Your task to perform on an android device: clear all cookies in the chrome app Image 0: 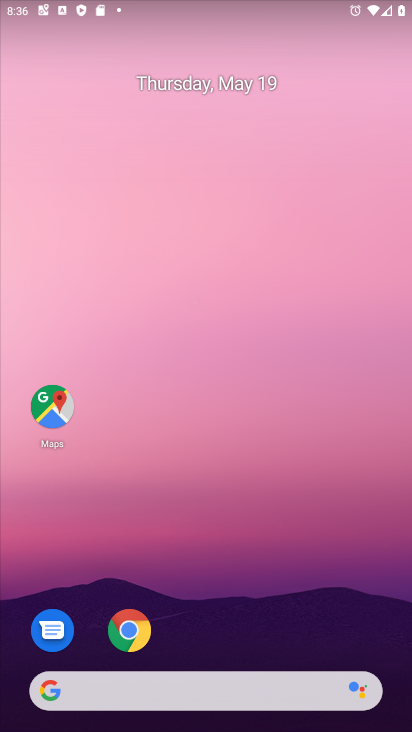
Step 0: click (129, 629)
Your task to perform on an android device: clear all cookies in the chrome app Image 1: 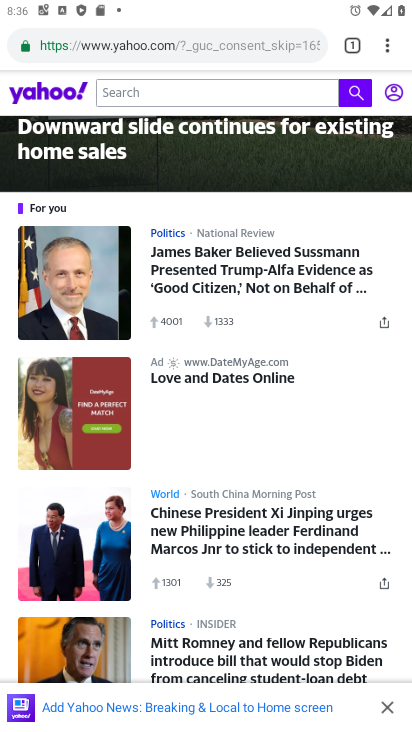
Step 1: click (384, 51)
Your task to perform on an android device: clear all cookies in the chrome app Image 2: 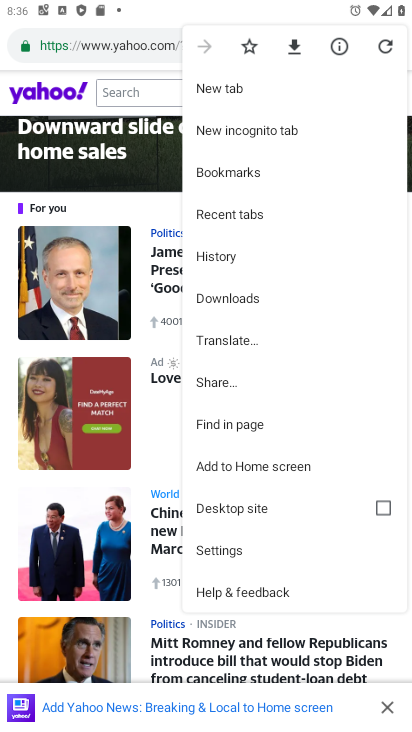
Step 2: click (213, 260)
Your task to perform on an android device: clear all cookies in the chrome app Image 3: 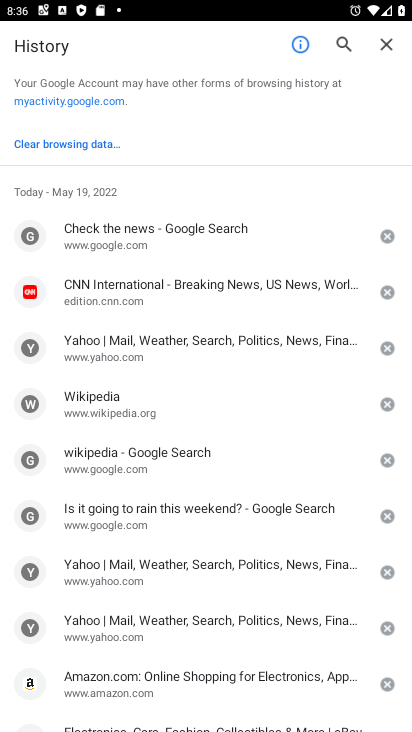
Step 3: click (55, 139)
Your task to perform on an android device: clear all cookies in the chrome app Image 4: 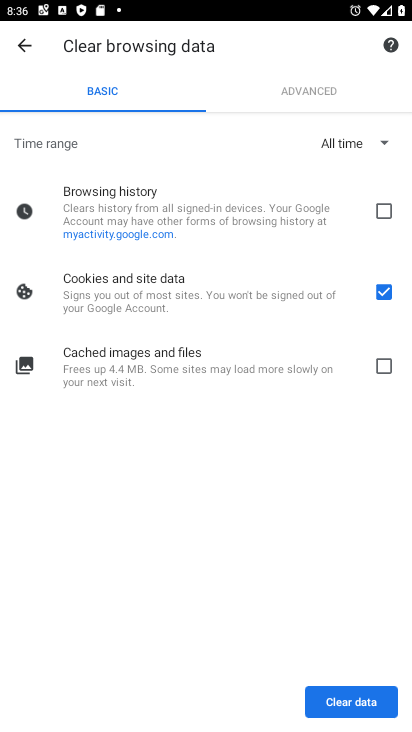
Step 4: click (343, 708)
Your task to perform on an android device: clear all cookies in the chrome app Image 5: 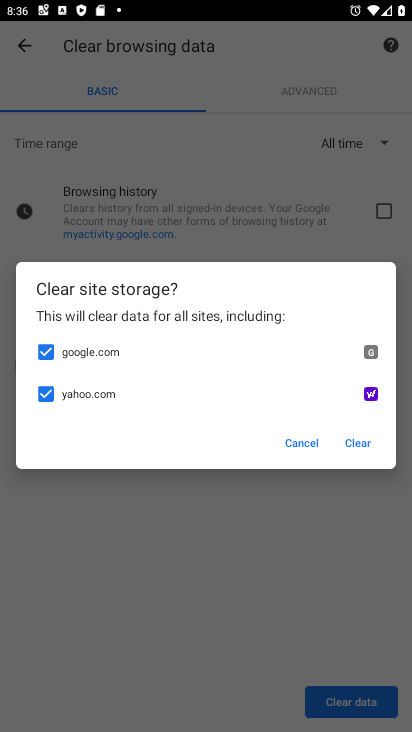
Step 5: click (350, 438)
Your task to perform on an android device: clear all cookies in the chrome app Image 6: 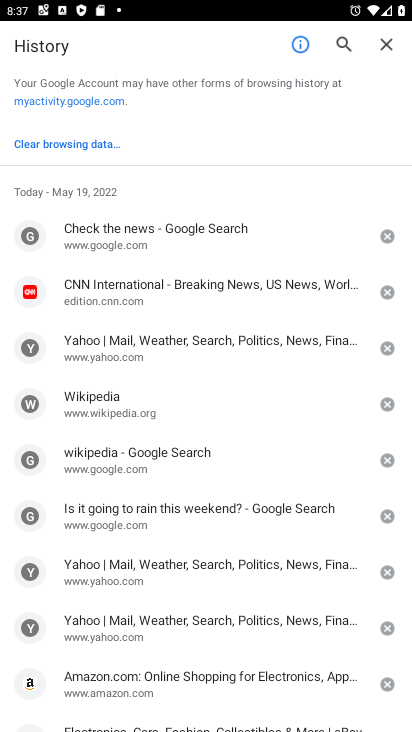
Step 6: task complete